Your task to perform on an android device: change notifications settings Image 0: 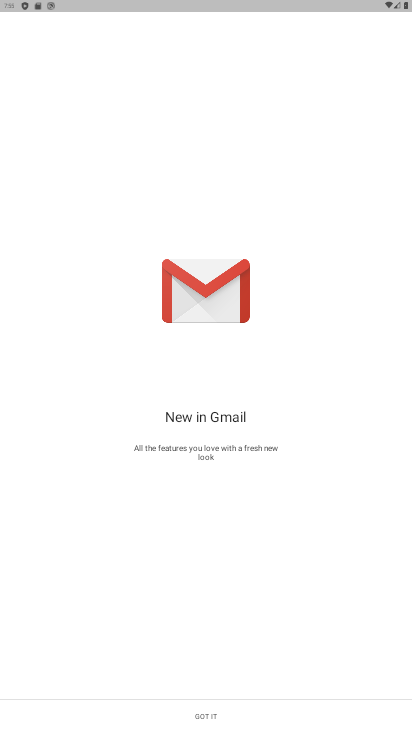
Step 0: press home button
Your task to perform on an android device: change notifications settings Image 1: 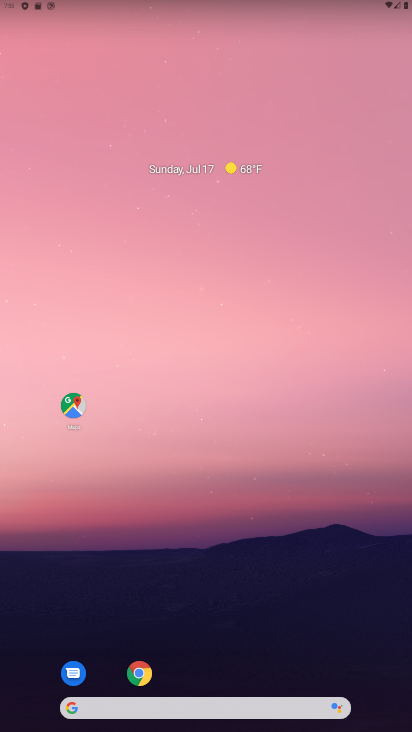
Step 1: drag from (301, 642) to (65, 23)
Your task to perform on an android device: change notifications settings Image 2: 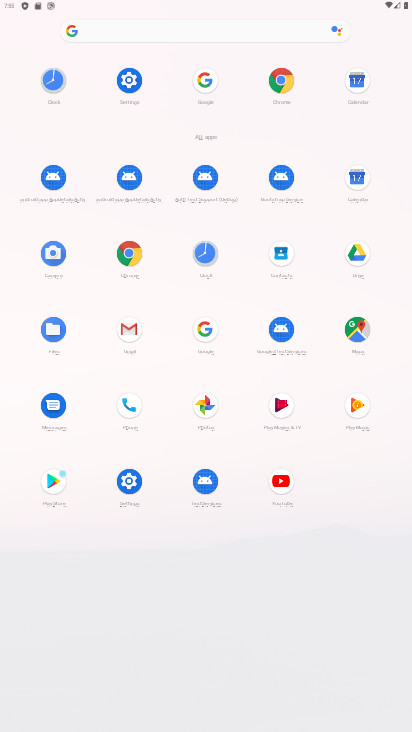
Step 2: click (128, 78)
Your task to perform on an android device: change notifications settings Image 3: 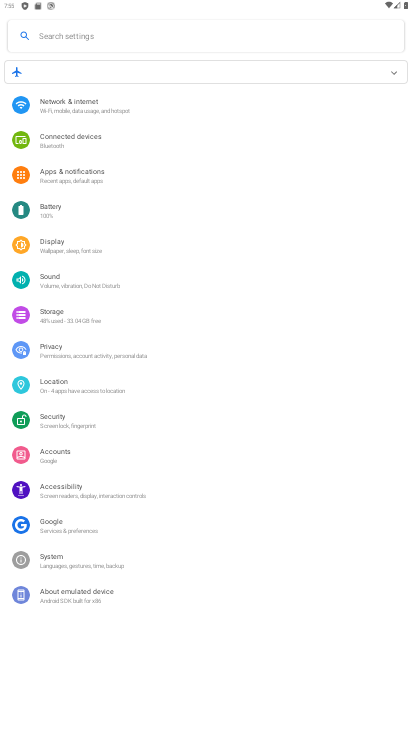
Step 3: click (94, 175)
Your task to perform on an android device: change notifications settings Image 4: 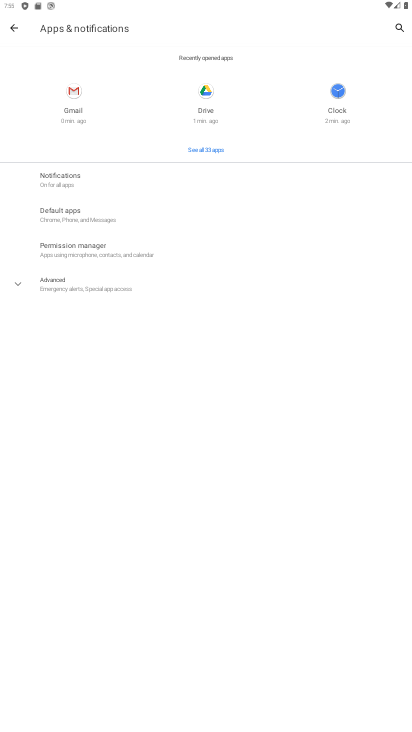
Step 4: click (59, 176)
Your task to perform on an android device: change notifications settings Image 5: 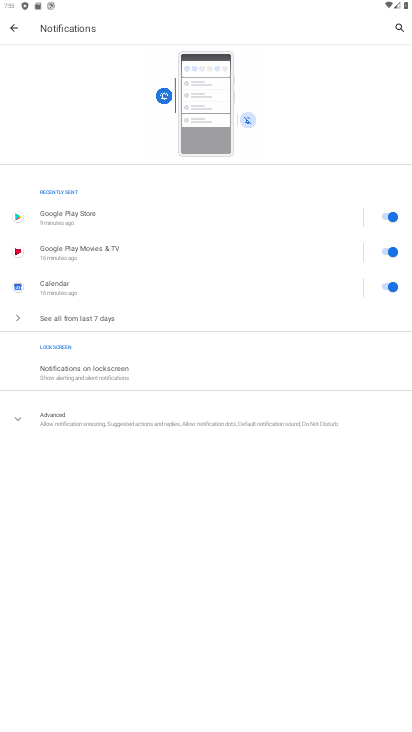
Step 5: click (87, 422)
Your task to perform on an android device: change notifications settings Image 6: 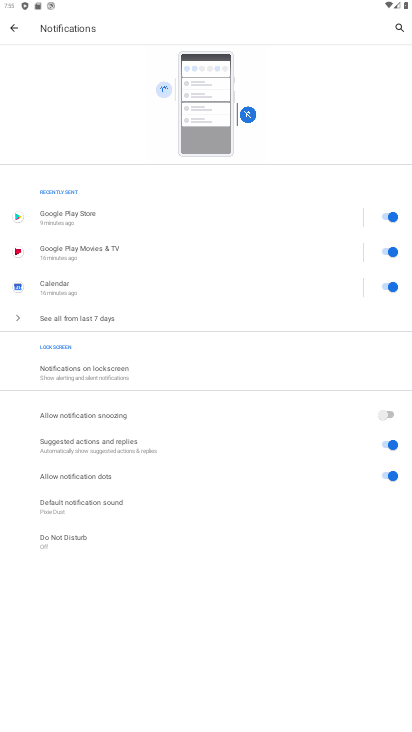
Step 6: click (396, 220)
Your task to perform on an android device: change notifications settings Image 7: 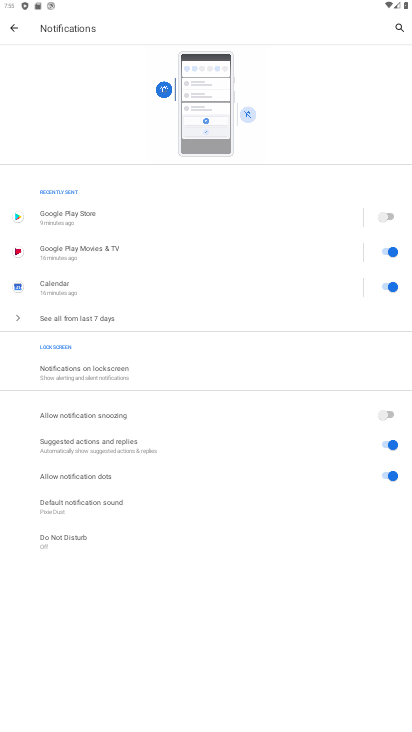
Step 7: task complete